Your task to perform on an android device: toggle notification dots Image 0: 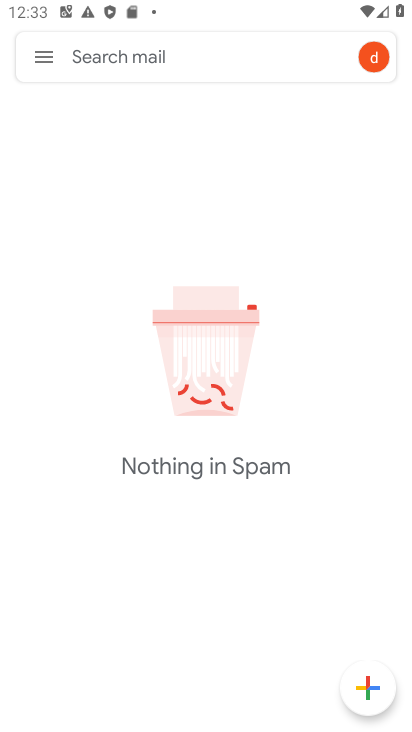
Step 0: press home button
Your task to perform on an android device: toggle notification dots Image 1: 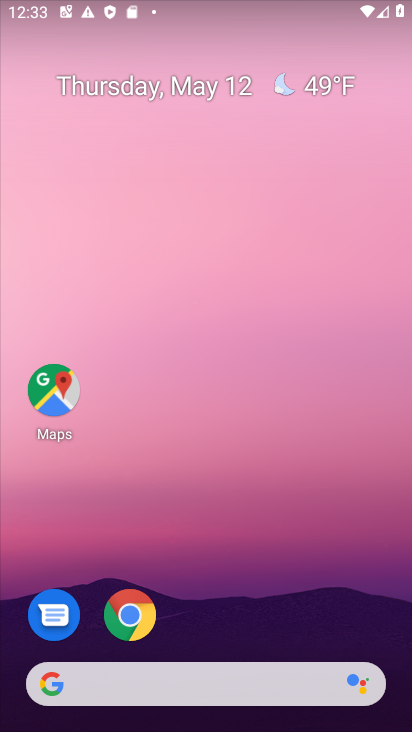
Step 1: drag from (143, 724) to (265, 316)
Your task to perform on an android device: toggle notification dots Image 2: 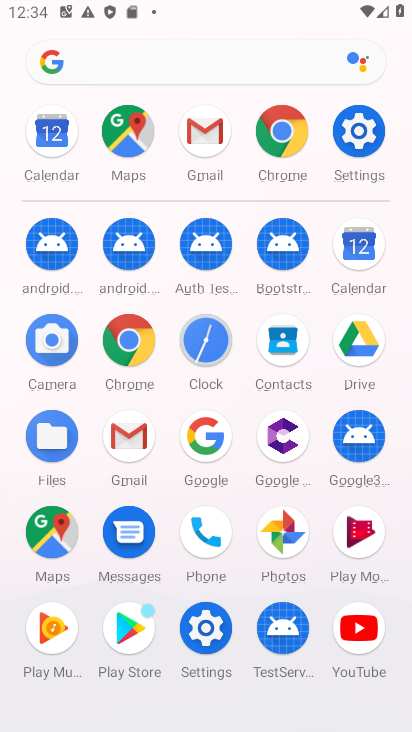
Step 2: click (201, 621)
Your task to perform on an android device: toggle notification dots Image 3: 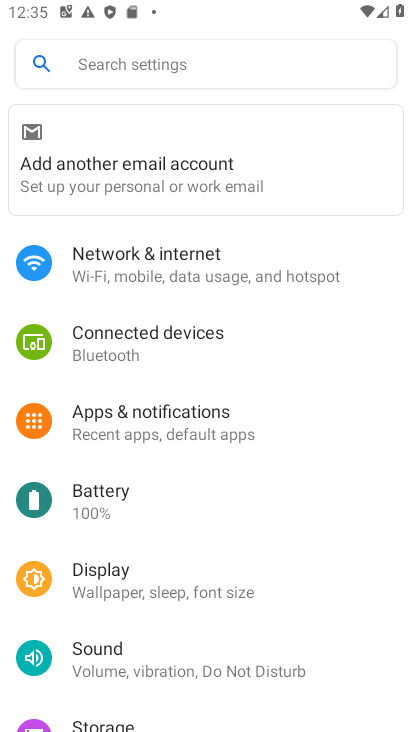
Step 3: click (148, 61)
Your task to perform on an android device: toggle notification dots Image 4: 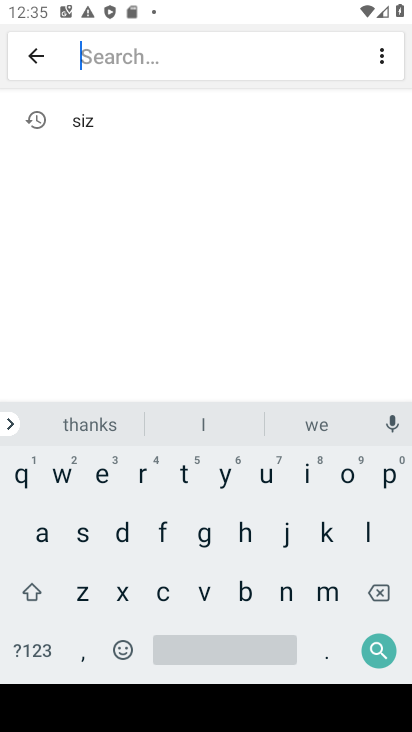
Step 4: click (112, 535)
Your task to perform on an android device: toggle notification dots Image 5: 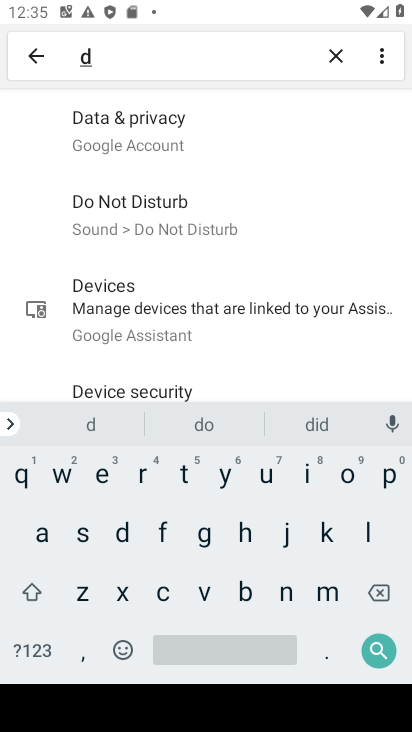
Step 5: click (347, 472)
Your task to perform on an android device: toggle notification dots Image 6: 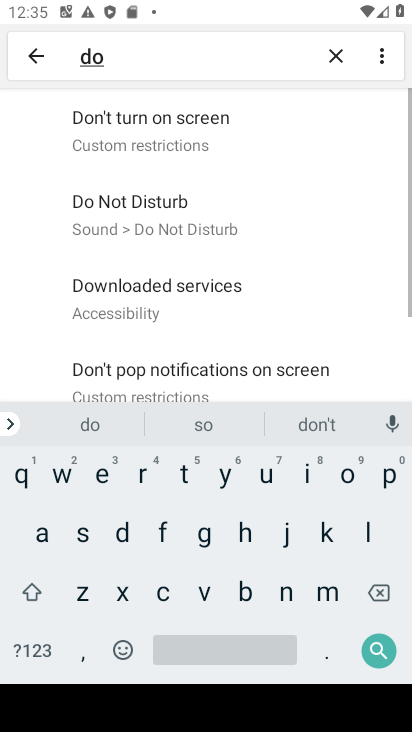
Step 6: click (186, 476)
Your task to perform on an android device: toggle notification dots Image 7: 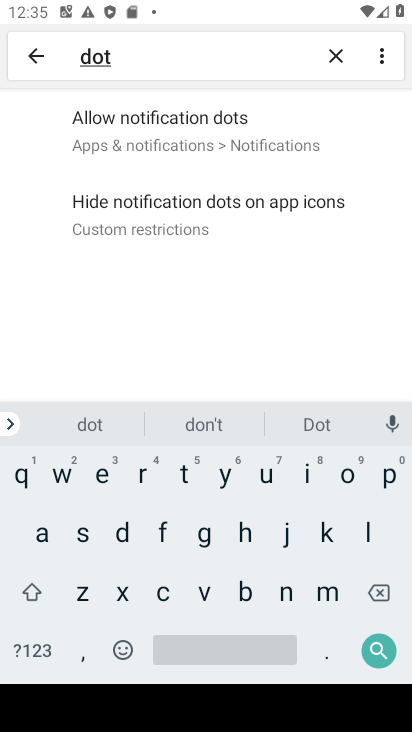
Step 7: click (190, 138)
Your task to perform on an android device: toggle notification dots Image 8: 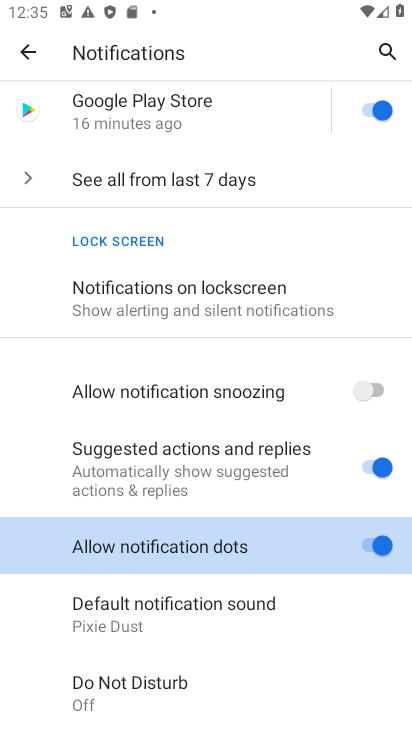
Step 8: task complete